Your task to perform on an android device: empty trash in the gmail app Image 0: 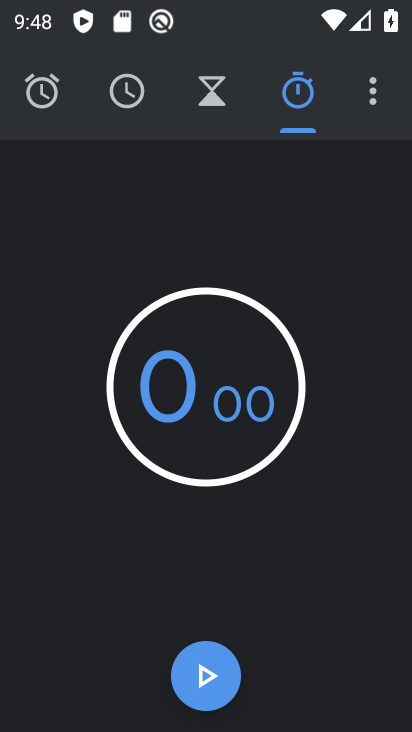
Step 0: press home button
Your task to perform on an android device: empty trash in the gmail app Image 1: 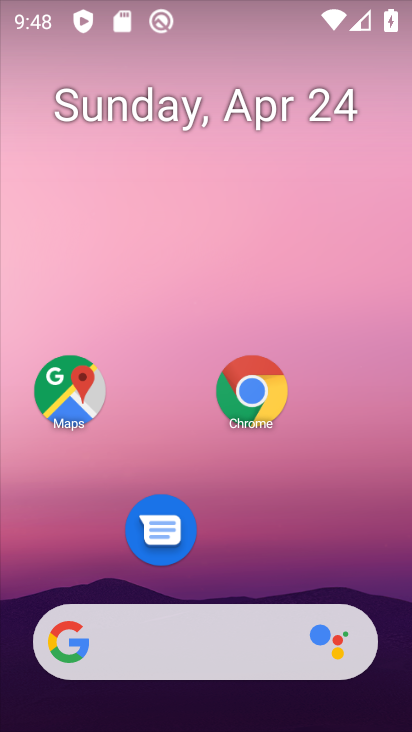
Step 1: drag from (213, 586) to (166, 131)
Your task to perform on an android device: empty trash in the gmail app Image 2: 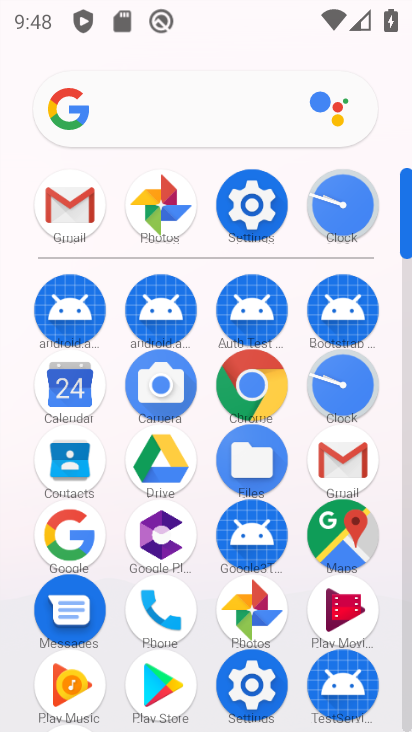
Step 2: click (51, 208)
Your task to perform on an android device: empty trash in the gmail app Image 3: 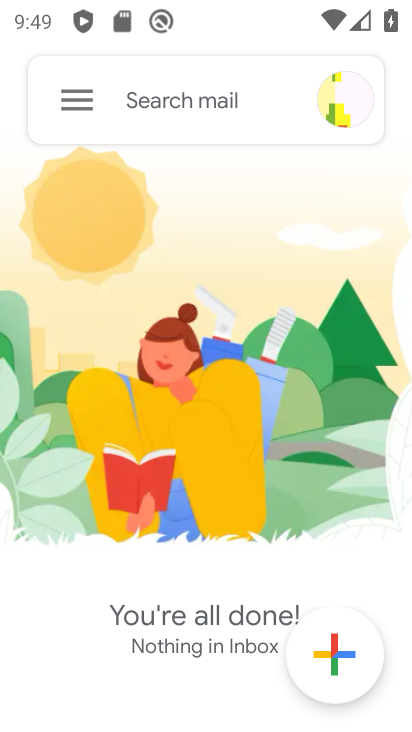
Step 3: click (94, 101)
Your task to perform on an android device: empty trash in the gmail app Image 4: 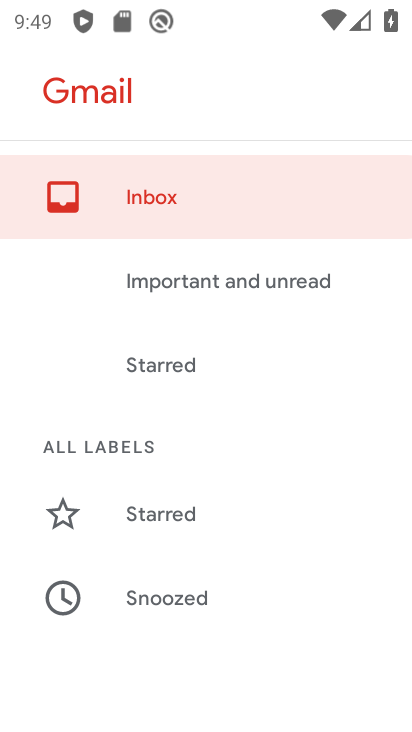
Step 4: drag from (157, 506) to (201, 197)
Your task to perform on an android device: empty trash in the gmail app Image 5: 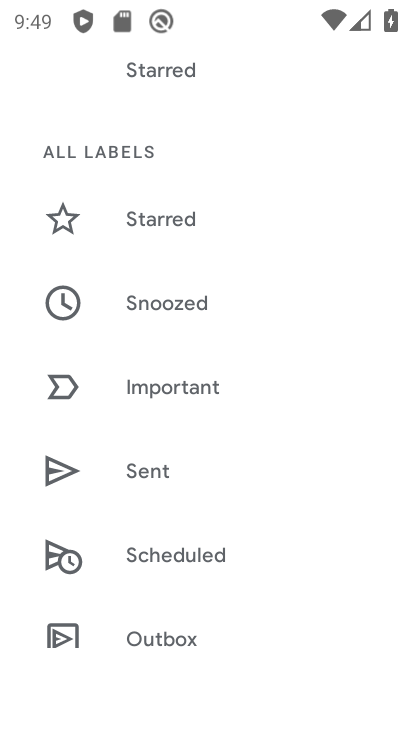
Step 5: drag from (133, 549) to (139, 253)
Your task to perform on an android device: empty trash in the gmail app Image 6: 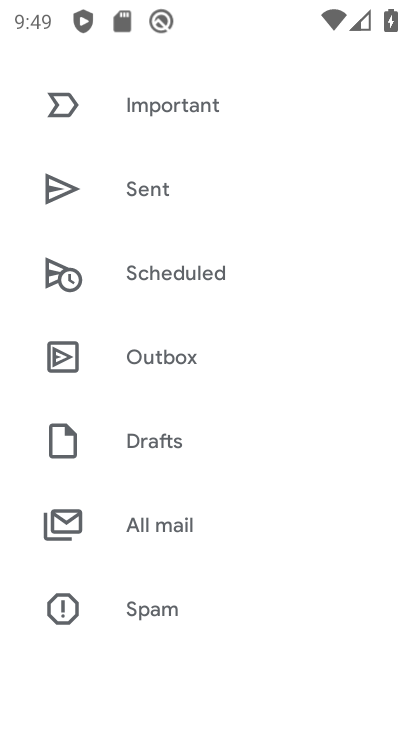
Step 6: drag from (90, 587) to (125, 362)
Your task to perform on an android device: empty trash in the gmail app Image 7: 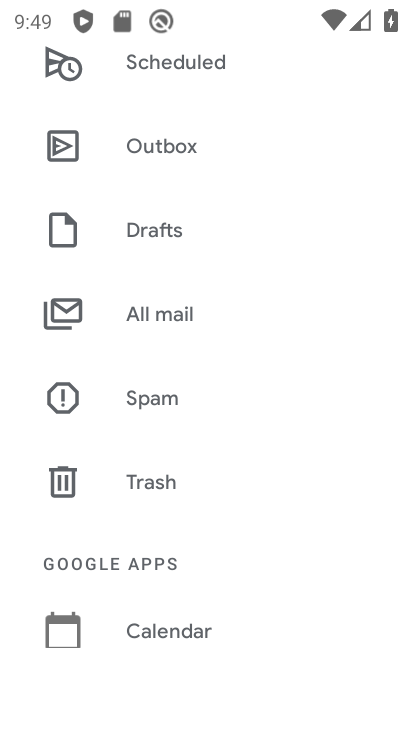
Step 7: click (148, 487)
Your task to perform on an android device: empty trash in the gmail app Image 8: 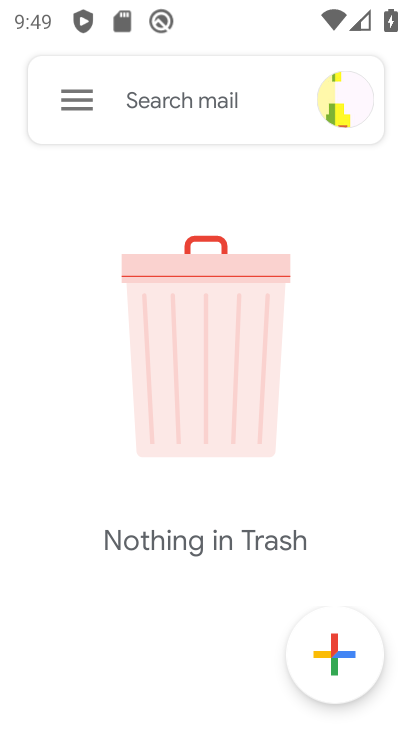
Step 8: task complete